Your task to perform on an android device: Open calendar and show me the second week of next month Image 0: 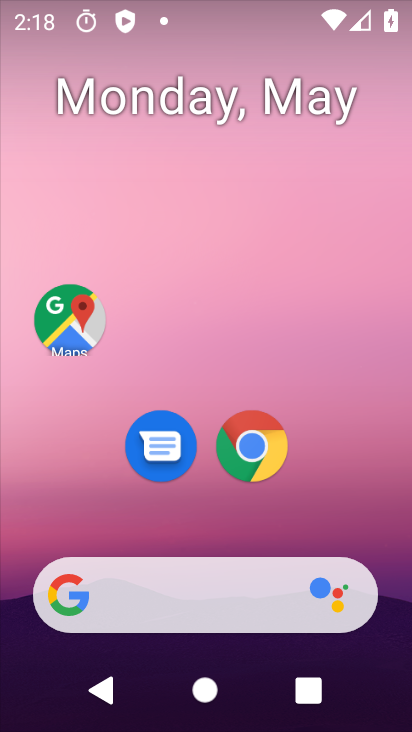
Step 0: drag from (250, 577) to (171, 11)
Your task to perform on an android device: Open calendar and show me the second week of next month Image 1: 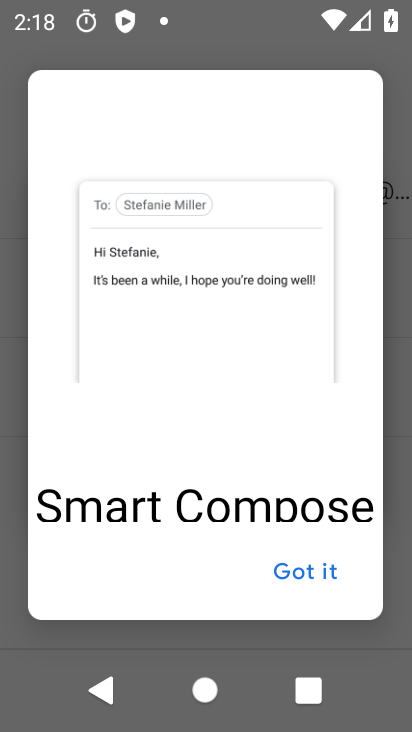
Step 1: press home button
Your task to perform on an android device: Open calendar and show me the second week of next month Image 2: 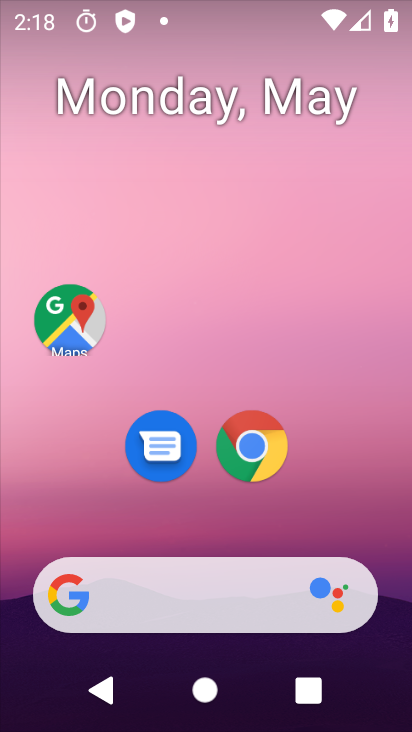
Step 2: drag from (174, 608) to (210, 164)
Your task to perform on an android device: Open calendar and show me the second week of next month Image 3: 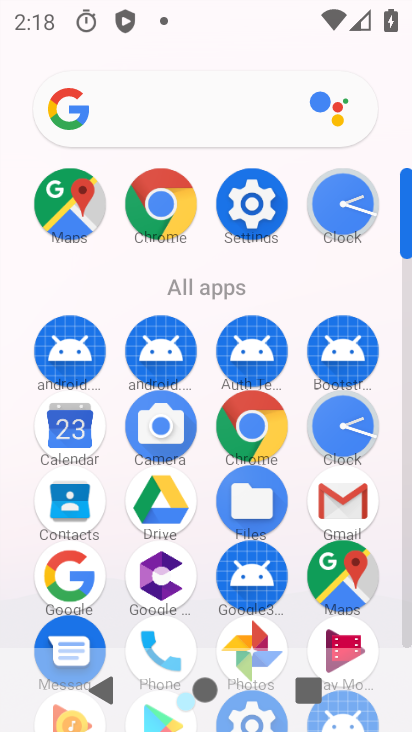
Step 3: click (64, 414)
Your task to perform on an android device: Open calendar and show me the second week of next month Image 4: 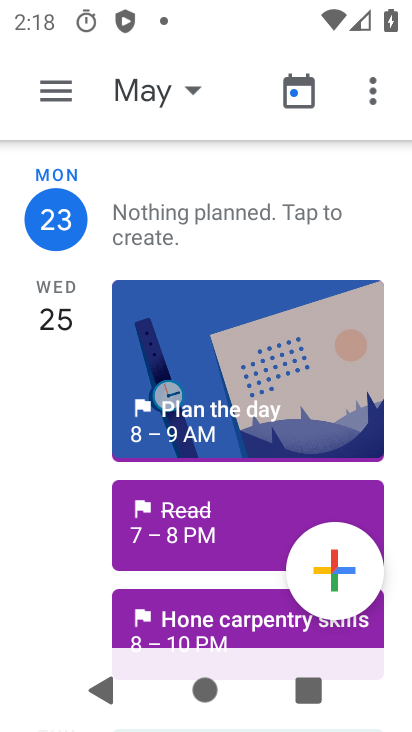
Step 4: click (62, 91)
Your task to perform on an android device: Open calendar and show me the second week of next month Image 5: 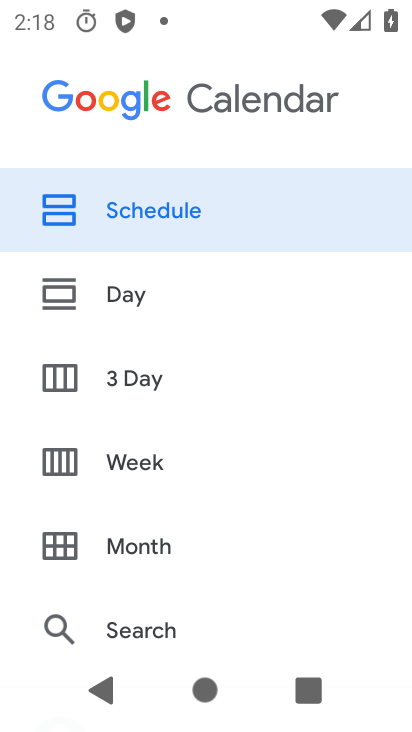
Step 5: click (126, 533)
Your task to perform on an android device: Open calendar and show me the second week of next month Image 6: 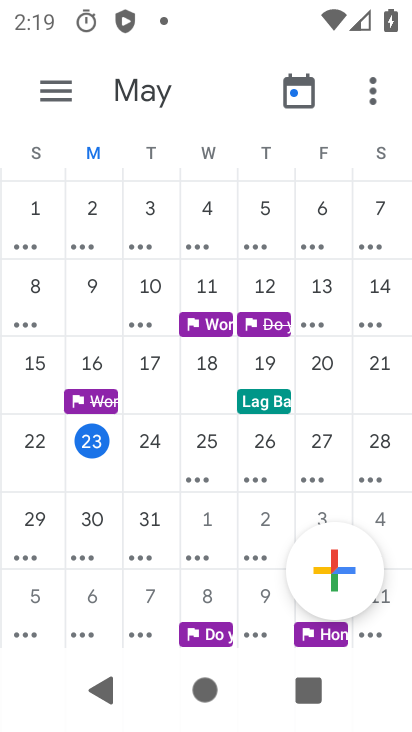
Step 6: task complete